Your task to perform on an android device: delete a single message in the gmail app Image 0: 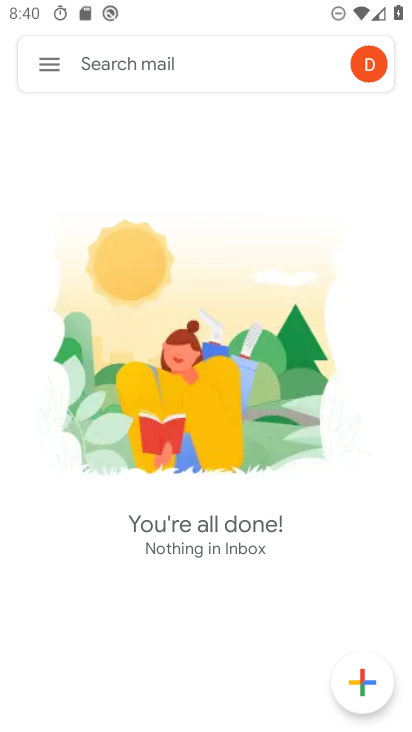
Step 0: press home button
Your task to perform on an android device: delete a single message in the gmail app Image 1: 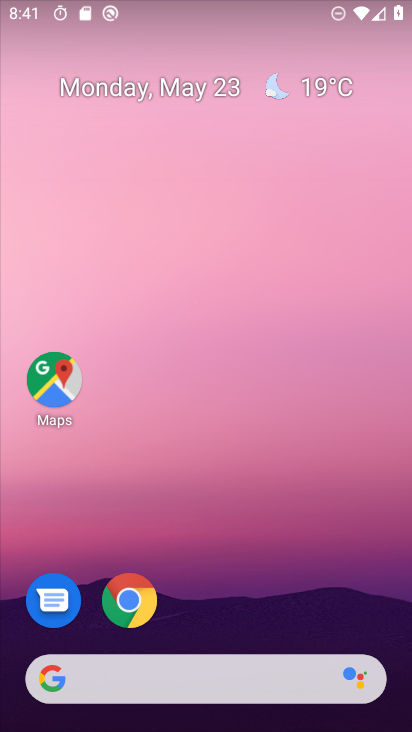
Step 1: drag from (20, 606) to (255, 73)
Your task to perform on an android device: delete a single message in the gmail app Image 2: 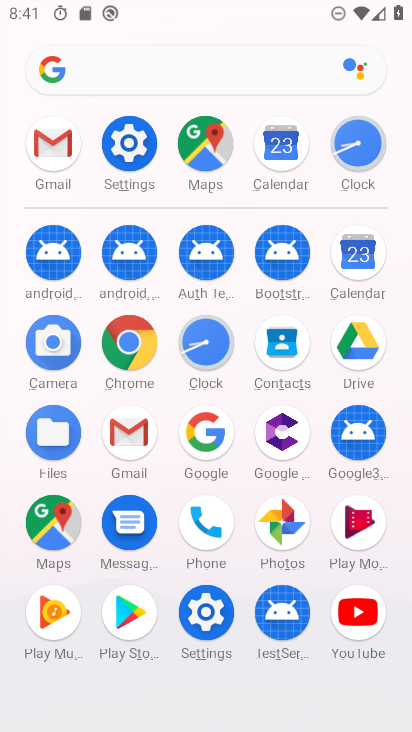
Step 2: click (52, 160)
Your task to perform on an android device: delete a single message in the gmail app Image 3: 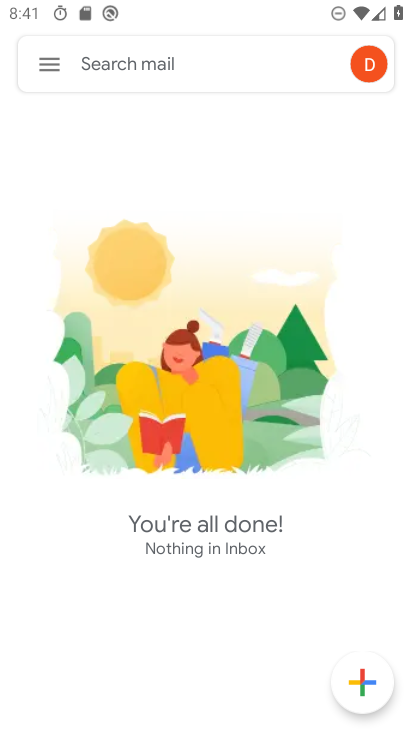
Step 3: click (60, 69)
Your task to perform on an android device: delete a single message in the gmail app Image 4: 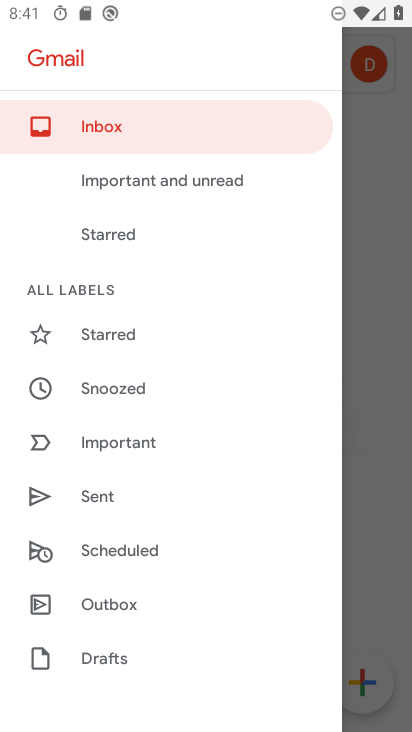
Step 4: click (143, 130)
Your task to perform on an android device: delete a single message in the gmail app Image 5: 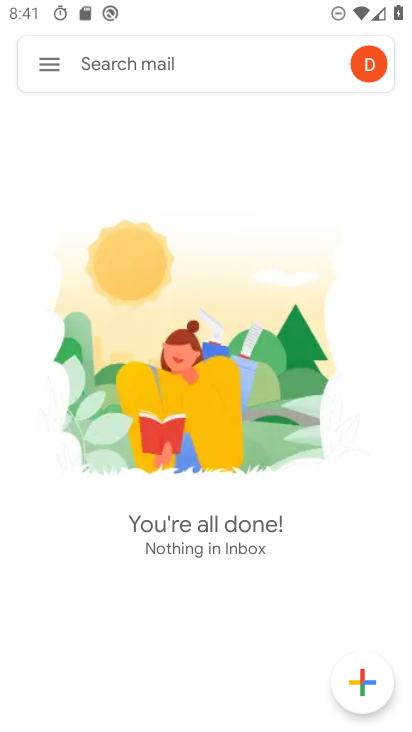
Step 5: task complete